Your task to perform on an android device: What's on my calendar today? Image 0: 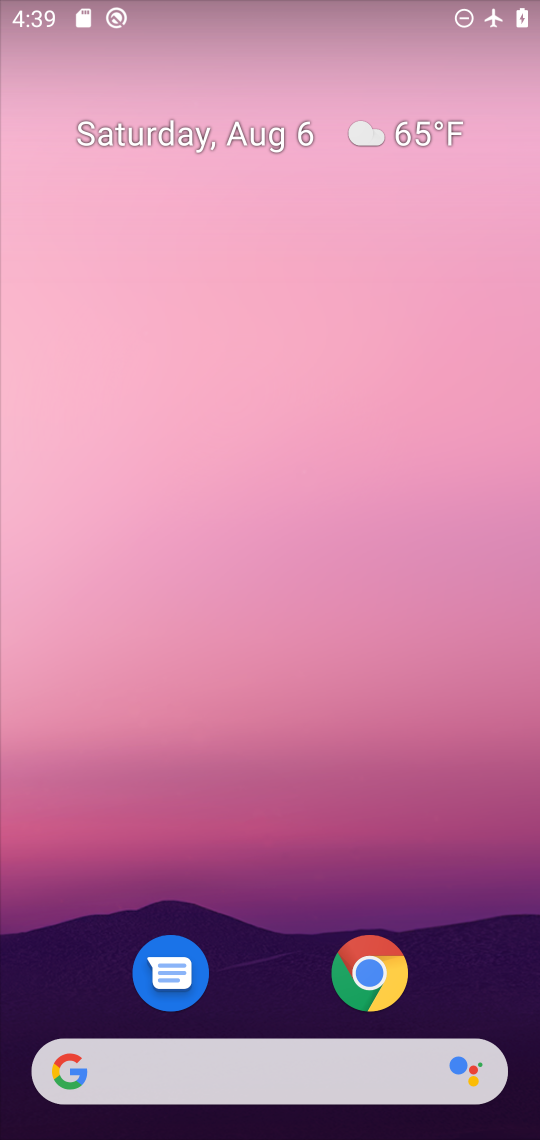
Step 0: drag from (242, 896) to (139, 102)
Your task to perform on an android device: What's on my calendar today? Image 1: 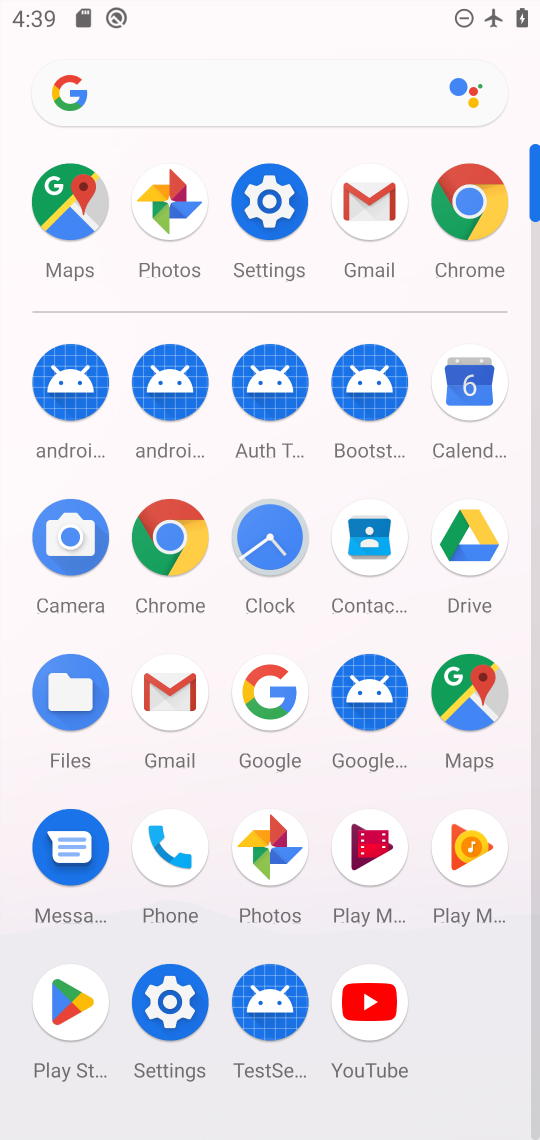
Step 1: click (463, 394)
Your task to perform on an android device: What's on my calendar today? Image 2: 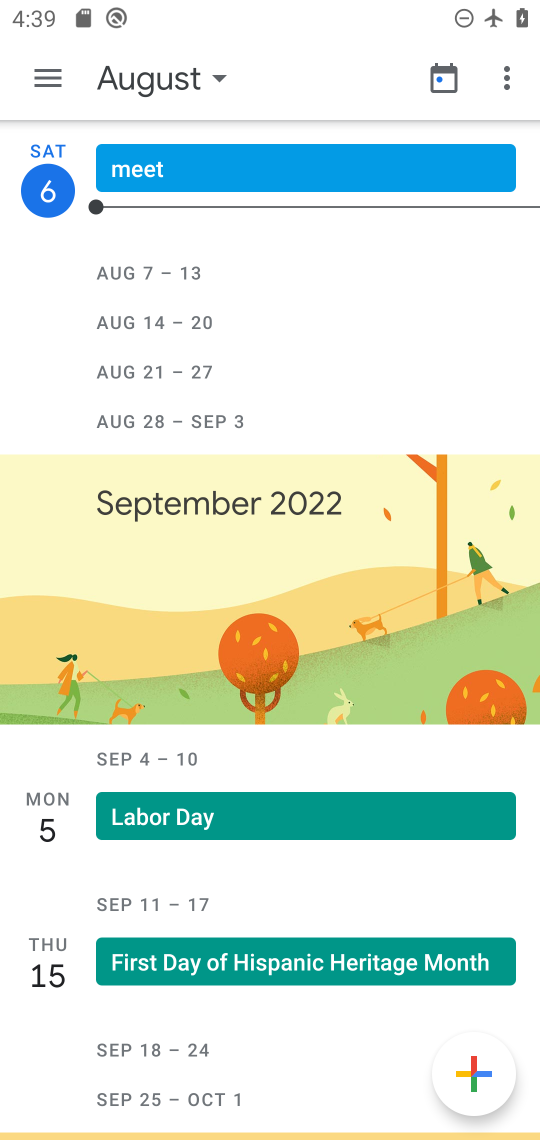
Step 2: task complete